Your task to perform on an android device: change your default location settings in chrome Image 0: 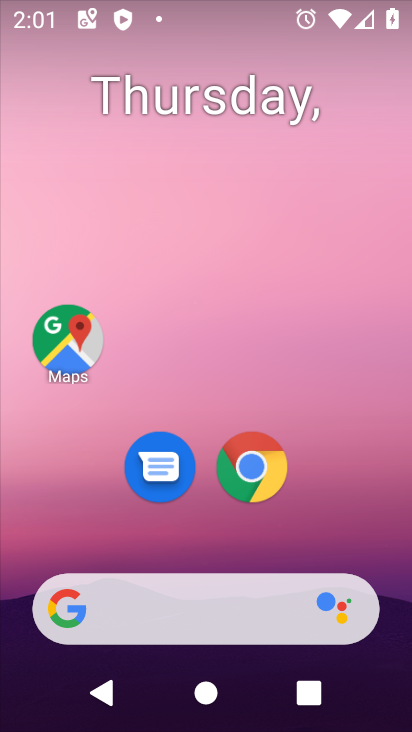
Step 0: drag from (308, 531) to (277, 150)
Your task to perform on an android device: change your default location settings in chrome Image 1: 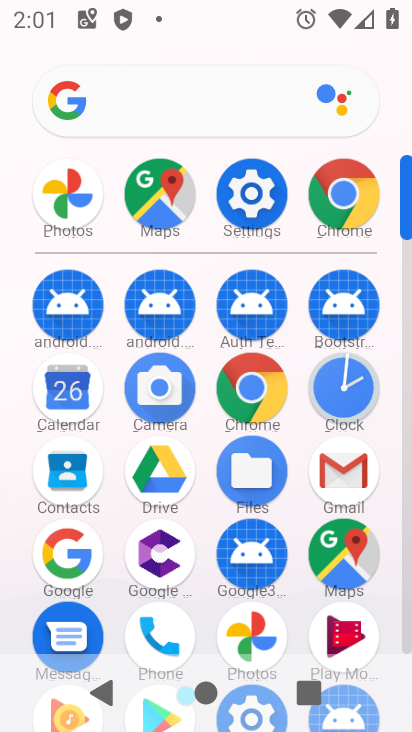
Step 1: click (256, 405)
Your task to perform on an android device: change your default location settings in chrome Image 2: 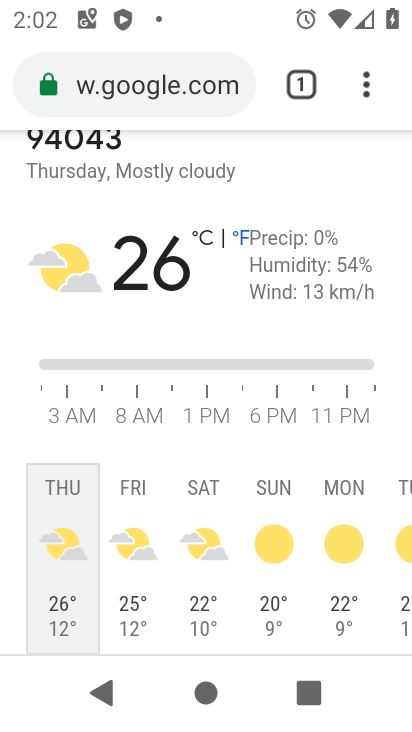
Step 2: drag from (377, 97) to (120, 531)
Your task to perform on an android device: change your default location settings in chrome Image 3: 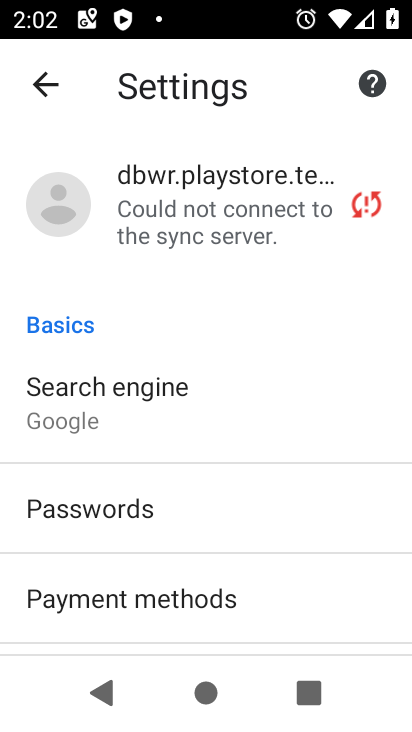
Step 3: drag from (307, 616) to (276, 289)
Your task to perform on an android device: change your default location settings in chrome Image 4: 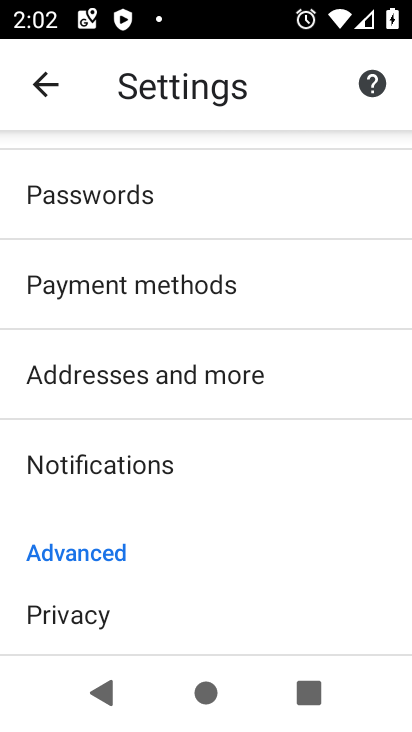
Step 4: drag from (272, 547) to (272, 229)
Your task to perform on an android device: change your default location settings in chrome Image 5: 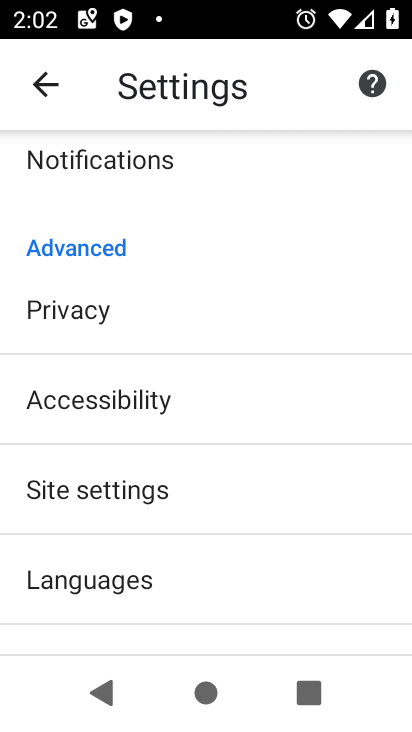
Step 5: click (205, 476)
Your task to perform on an android device: change your default location settings in chrome Image 6: 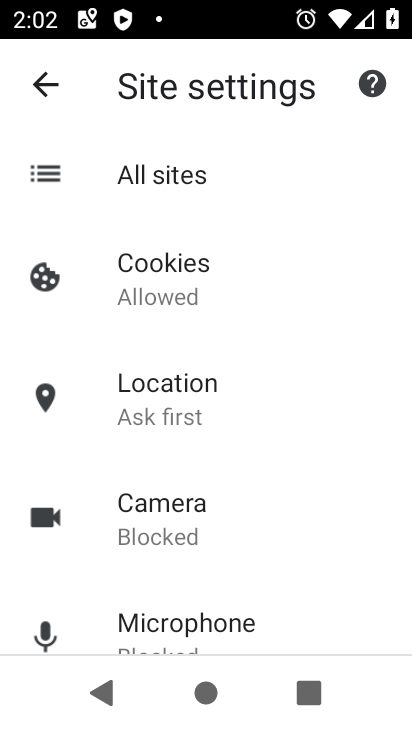
Step 6: click (227, 397)
Your task to perform on an android device: change your default location settings in chrome Image 7: 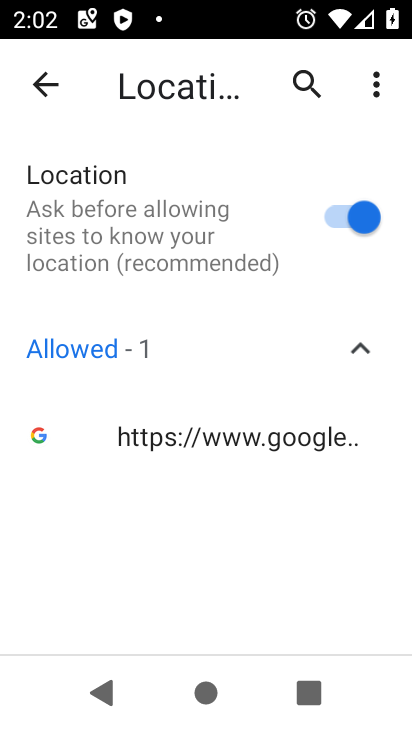
Step 7: task complete